Your task to perform on an android device: choose inbox layout in the gmail app Image 0: 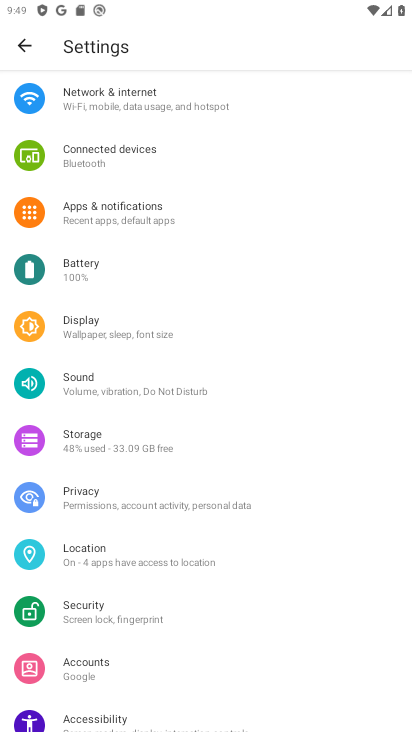
Step 0: press home button
Your task to perform on an android device: choose inbox layout in the gmail app Image 1: 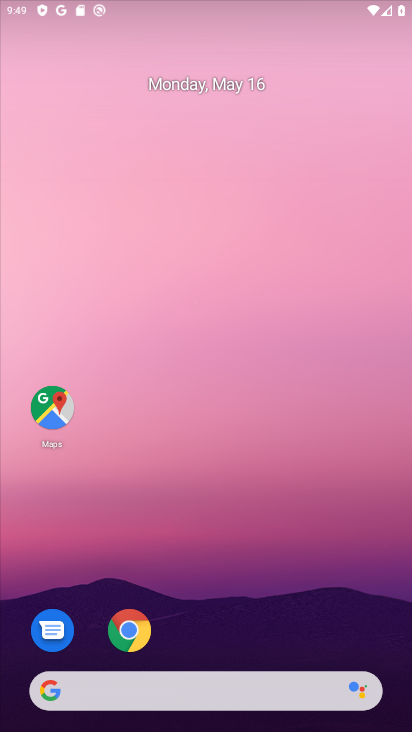
Step 1: drag from (193, 610) to (257, 150)
Your task to perform on an android device: choose inbox layout in the gmail app Image 2: 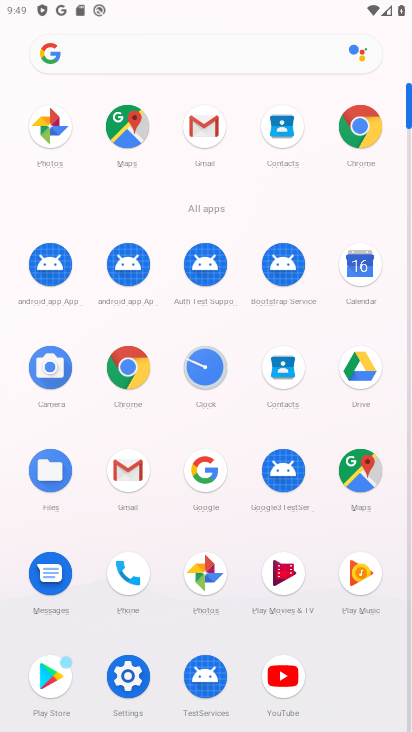
Step 2: click (131, 469)
Your task to perform on an android device: choose inbox layout in the gmail app Image 3: 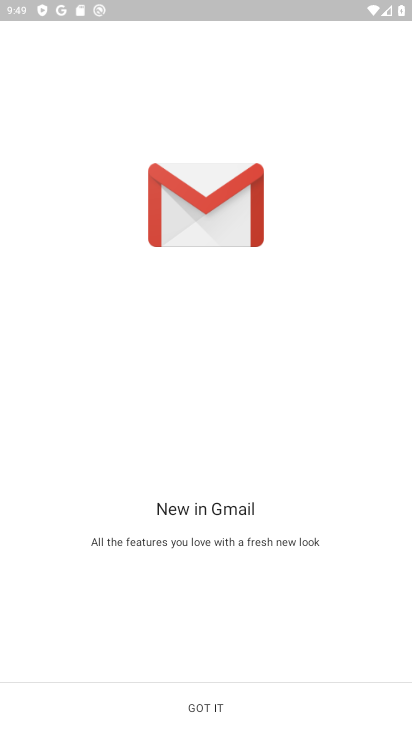
Step 3: click (315, 709)
Your task to perform on an android device: choose inbox layout in the gmail app Image 4: 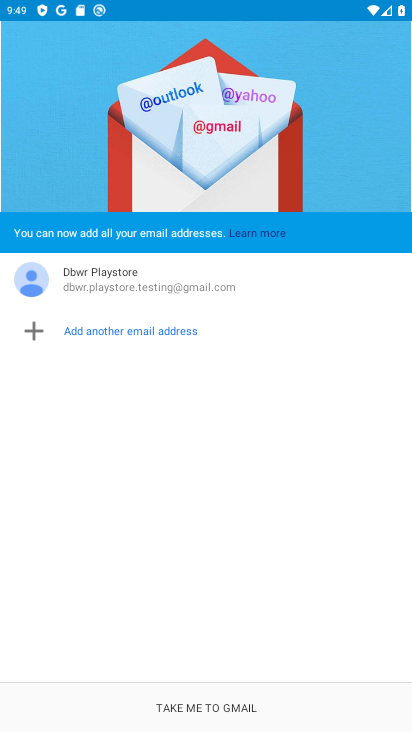
Step 4: click (315, 708)
Your task to perform on an android device: choose inbox layout in the gmail app Image 5: 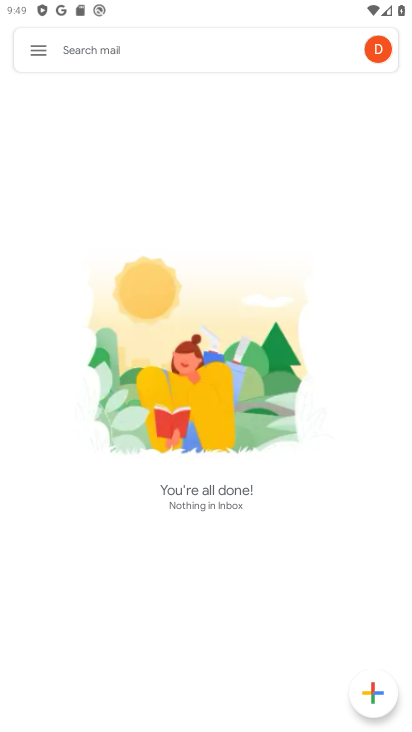
Step 5: click (29, 55)
Your task to perform on an android device: choose inbox layout in the gmail app Image 6: 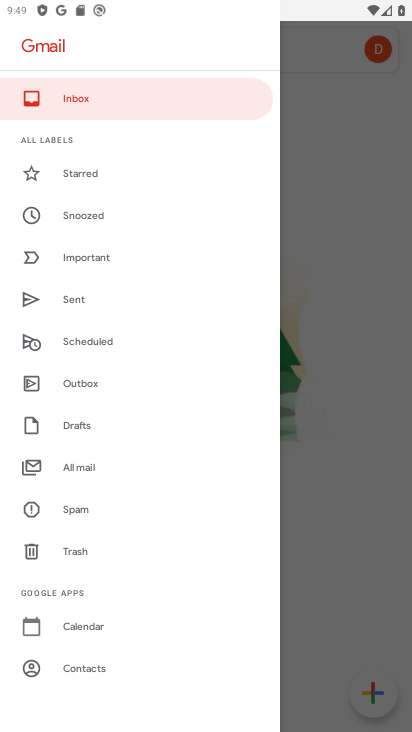
Step 6: drag from (62, 563) to (145, 123)
Your task to perform on an android device: choose inbox layout in the gmail app Image 7: 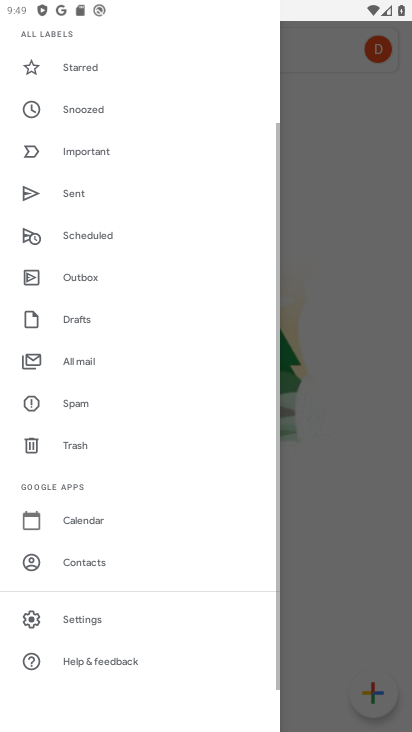
Step 7: click (87, 618)
Your task to perform on an android device: choose inbox layout in the gmail app Image 8: 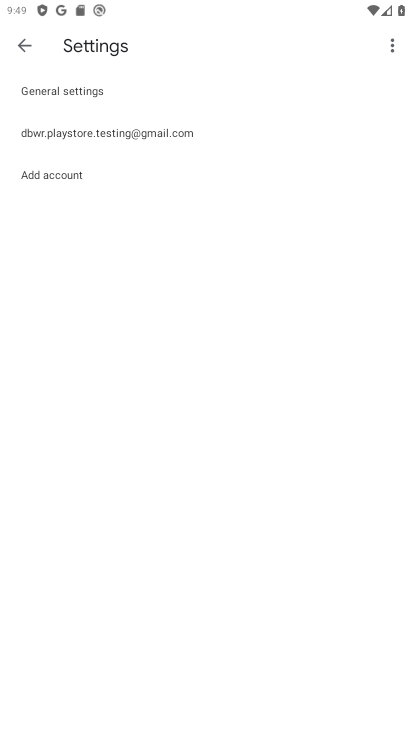
Step 8: click (86, 130)
Your task to perform on an android device: choose inbox layout in the gmail app Image 9: 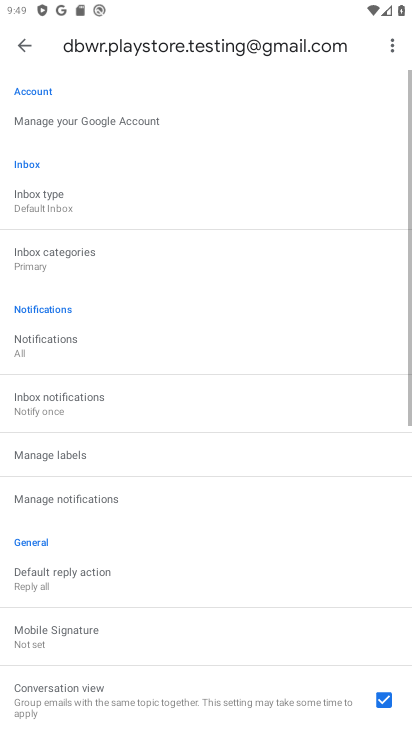
Step 9: click (87, 213)
Your task to perform on an android device: choose inbox layout in the gmail app Image 10: 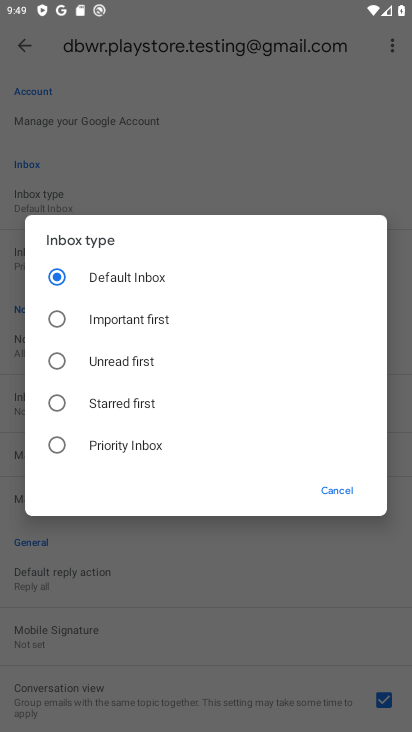
Step 10: click (61, 312)
Your task to perform on an android device: choose inbox layout in the gmail app Image 11: 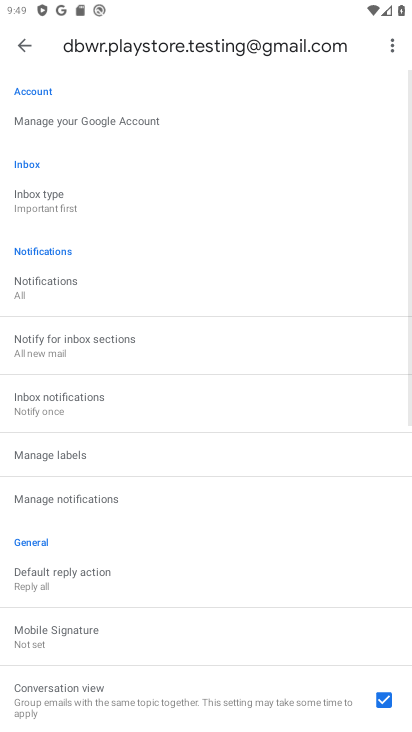
Step 11: task complete